Your task to perform on an android device: Show me popular videos on Youtube Image 0: 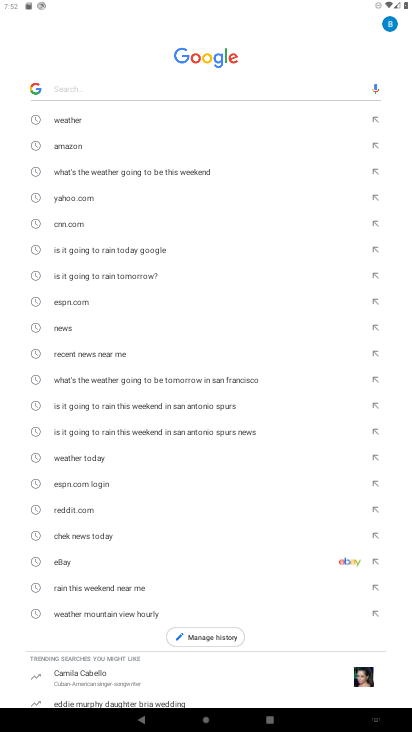
Step 0: press home button
Your task to perform on an android device: Show me popular videos on Youtube Image 1: 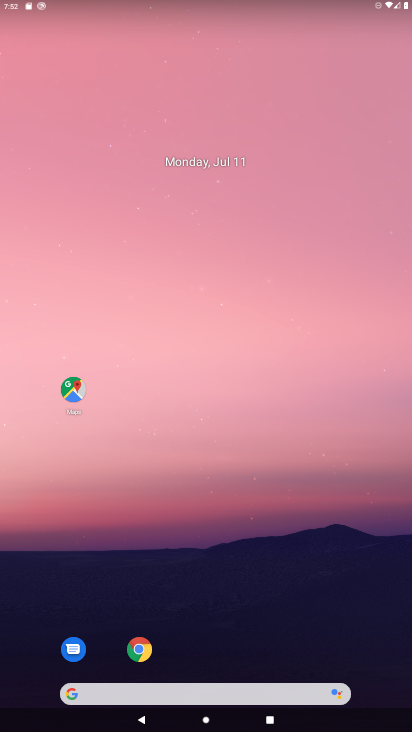
Step 1: drag from (222, 697) to (263, 28)
Your task to perform on an android device: Show me popular videos on Youtube Image 2: 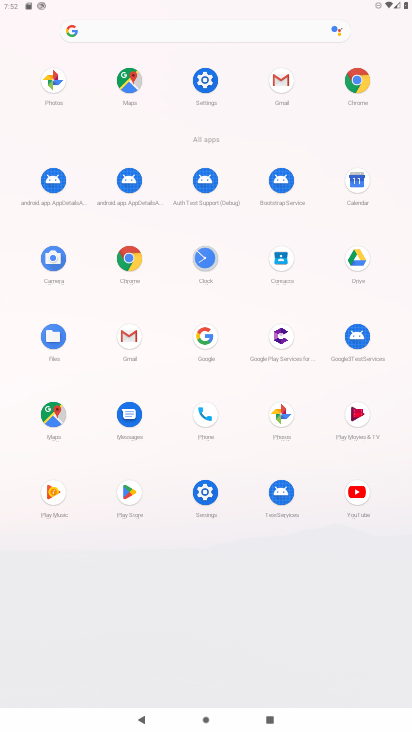
Step 2: click (356, 491)
Your task to perform on an android device: Show me popular videos on Youtube Image 3: 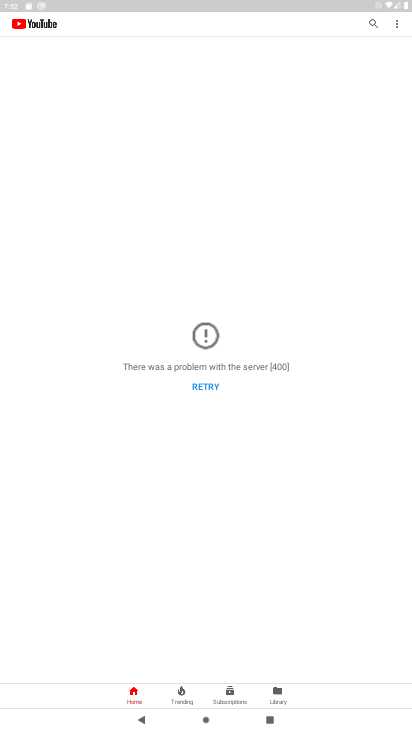
Step 3: click (197, 385)
Your task to perform on an android device: Show me popular videos on Youtube Image 4: 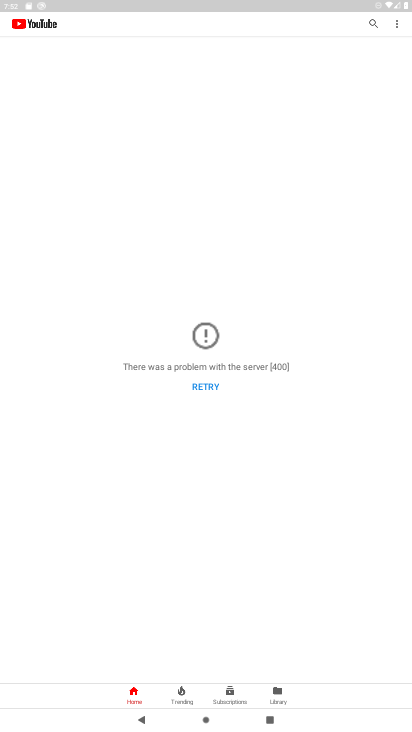
Step 4: click (197, 385)
Your task to perform on an android device: Show me popular videos on Youtube Image 5: 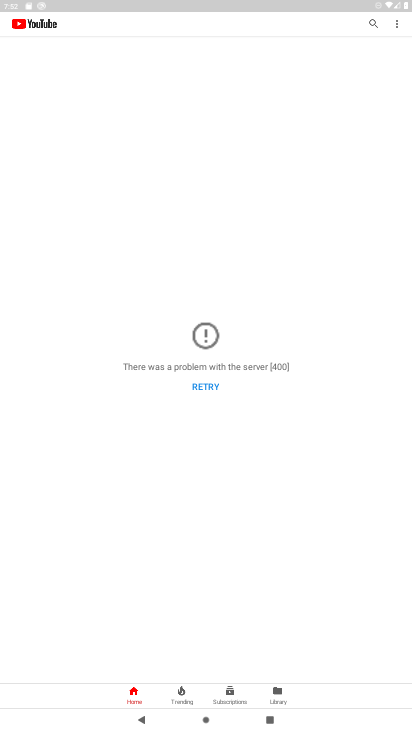
Step 5: click (197, 385)
Your task to perform on an android device: Show me popular videos on Youtube Image 6: 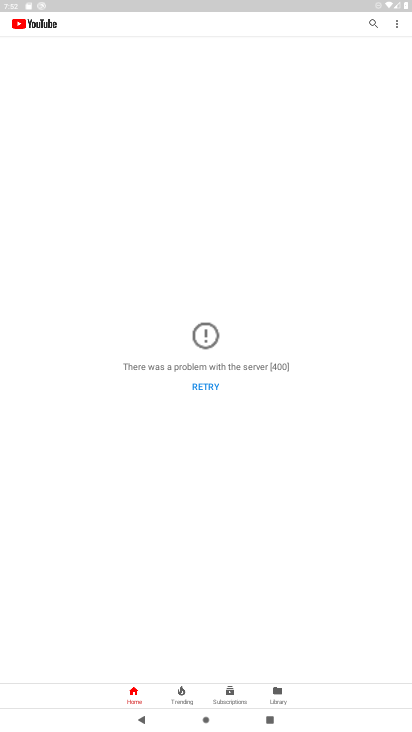
Step 6: task complete